Your task to perform on an android device: check android version Image 0: 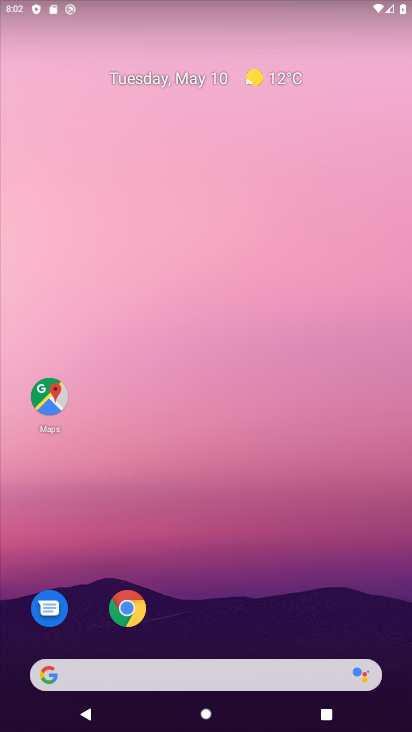
Step 0: drag from (261, 674) to (264, 283)
Your task to perform on an android device: check android version Image 1: 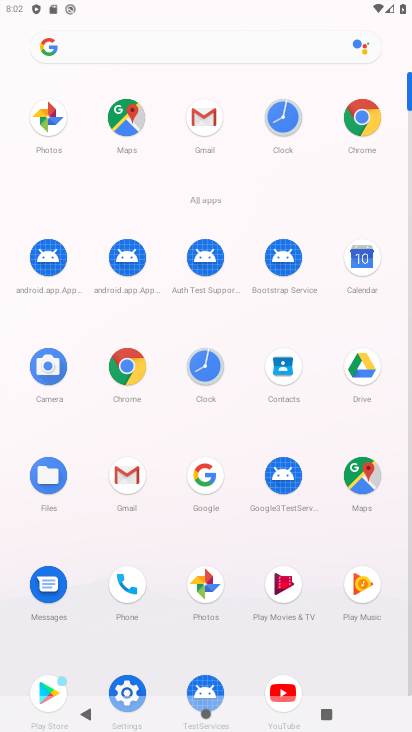
Step 1: drag from (235, 666) to (233, 283)
Your task to perform on an android device: check android version Image 2: 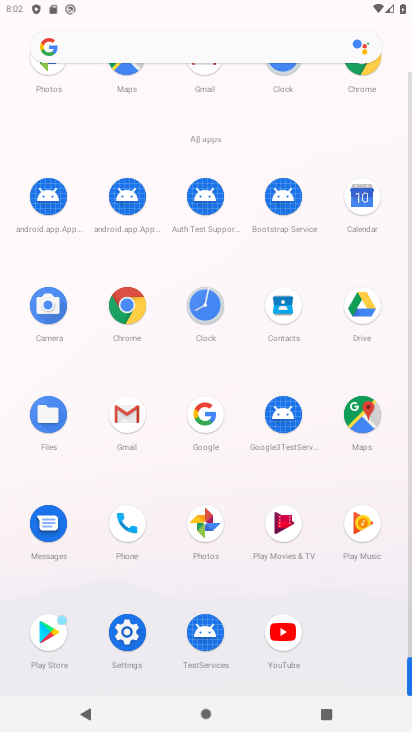
Step 2: click (125, 639)
Your task to perform on an android device: check android version Image 3: 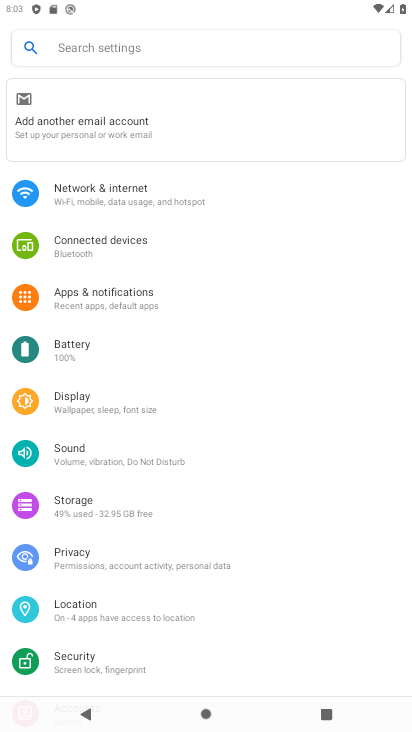
Step 3: drag from (137, 643) to (169, 109)
Your task to perform on an android device: check android version Image 4: 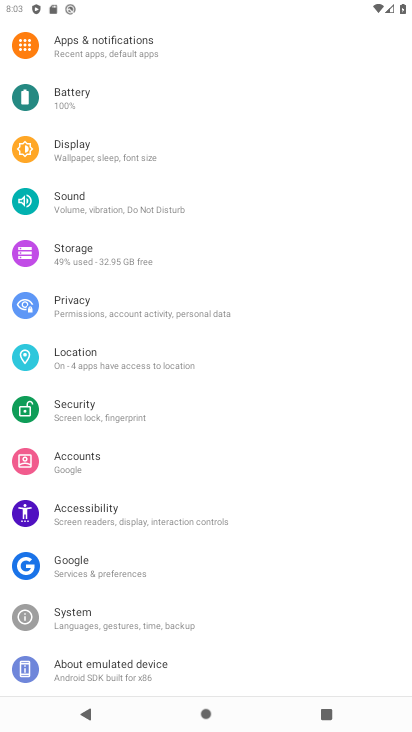
Step 4: click (143, 678)
Your task to perform on an android device: check android version Image 5: 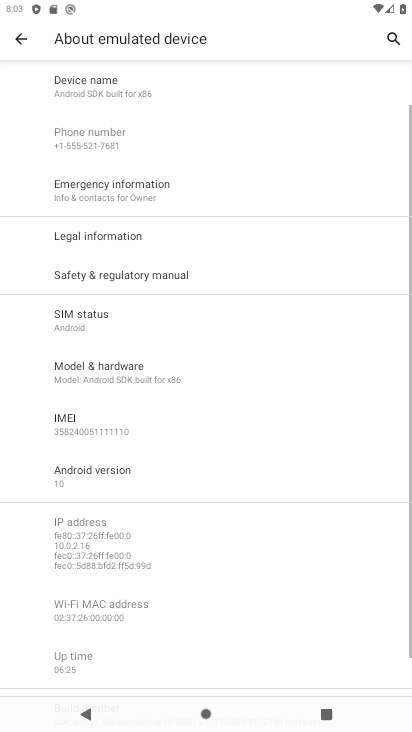
Step 5: click (134, 482)
Your task to perform on an android device: check android version Image 6: 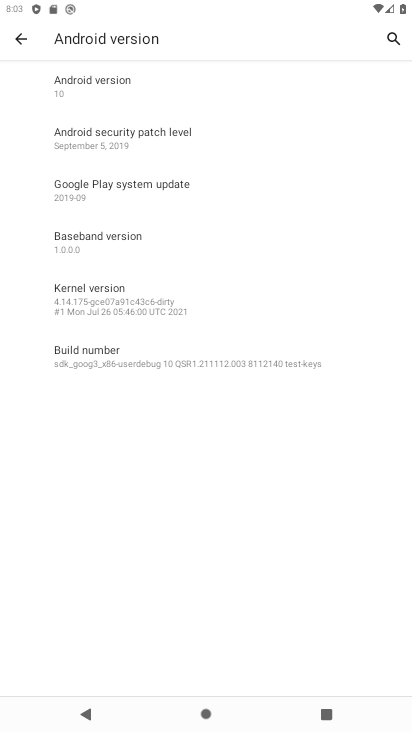
Step 6: task complete